Your task to perform on an android device: turn off location Image 0: 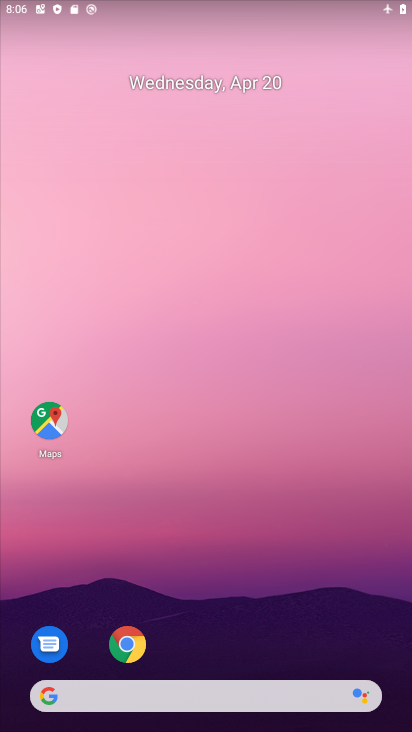
Step 0: drag from (356, 627) to (207, 80)
Your task to perform on an android device: turn off location Image 1: 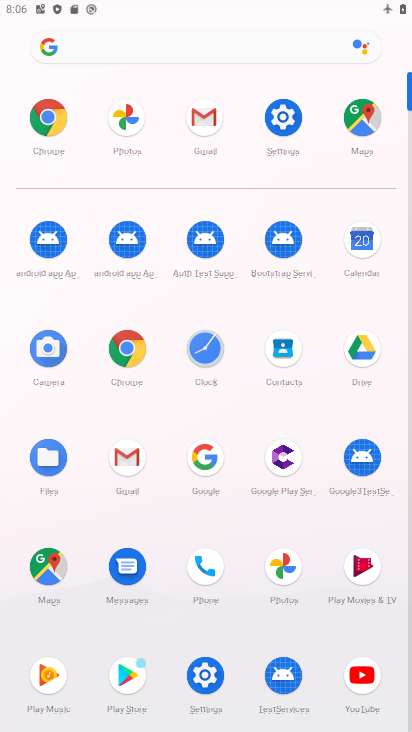
Step 1: click (278, 121)
Your task to perform on an android device: turn off location Image 2: 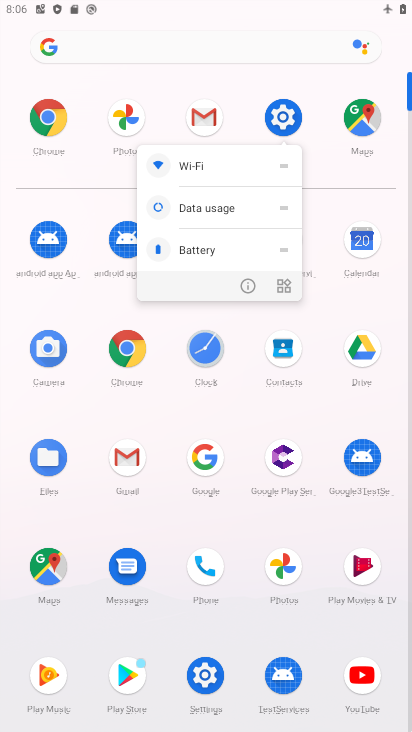
Step 2: click (281, 130)
Your task to perform on an android device: turn off location Image 3: 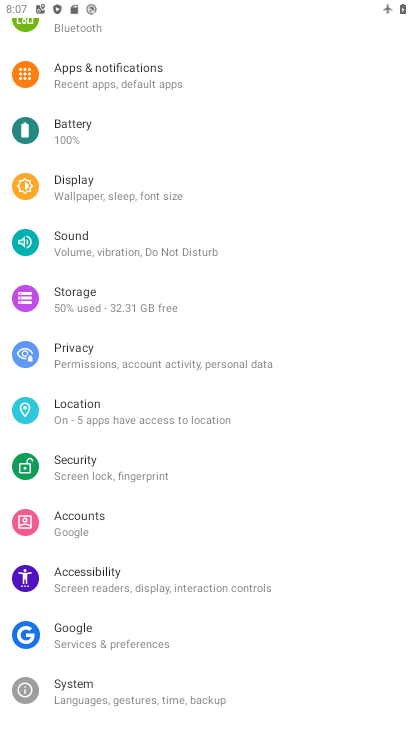
Step 3: click (117, 409)
Your task to perform on an android device: turn off location Image 4: 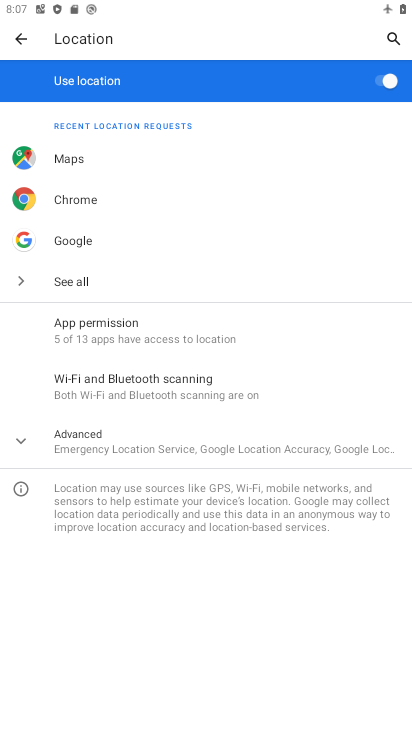
Step 4: click (366, 76)
Your task to perform on an android device: turn off location Image 5: 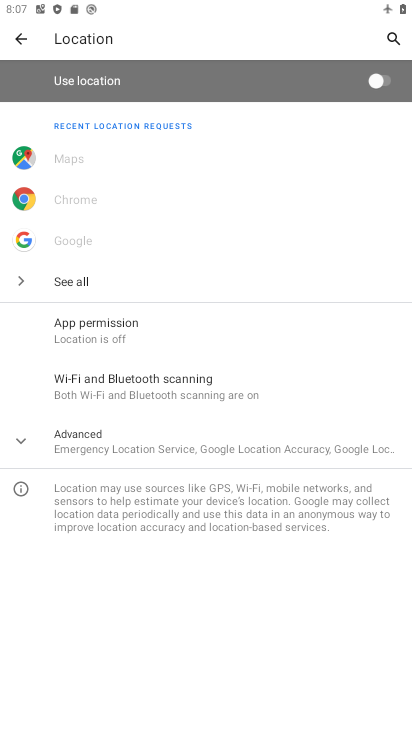
Step 5: task complete